Your task to perform on an android device: change the upload size in google photos Image 0: 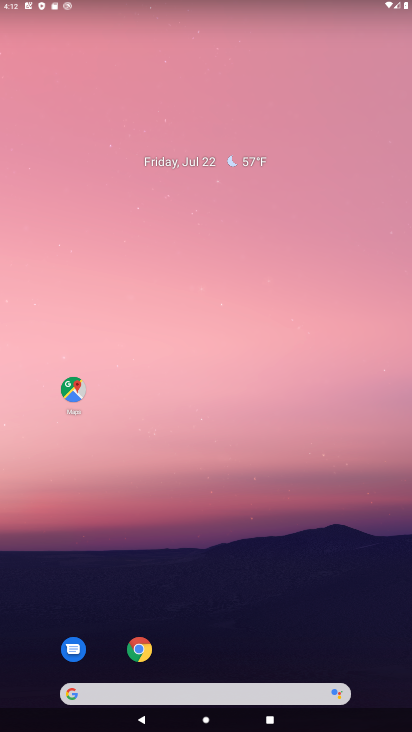
Step 0: drag from (31, 697) to (335, 36)
Your task to perform on an android device: change the upload size in google photos Image 1: 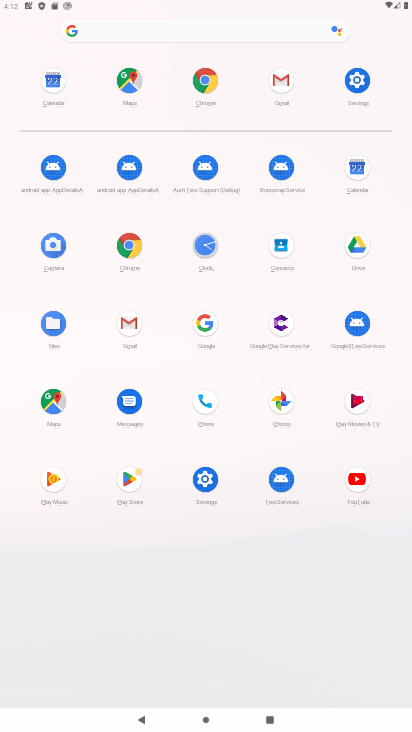
Step 1: click (277, 397)
Your task to perform on an android device: change the upload size in google photos Image 2: 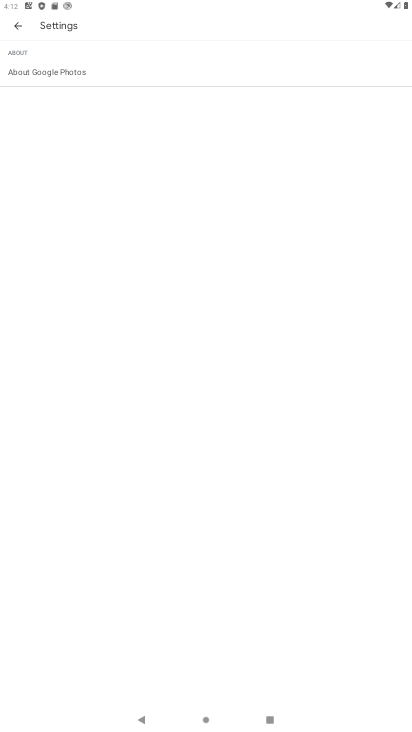
Step 2: click (13, 24)
Your task to perform on an android device: change the upload size in google photos Image 3: 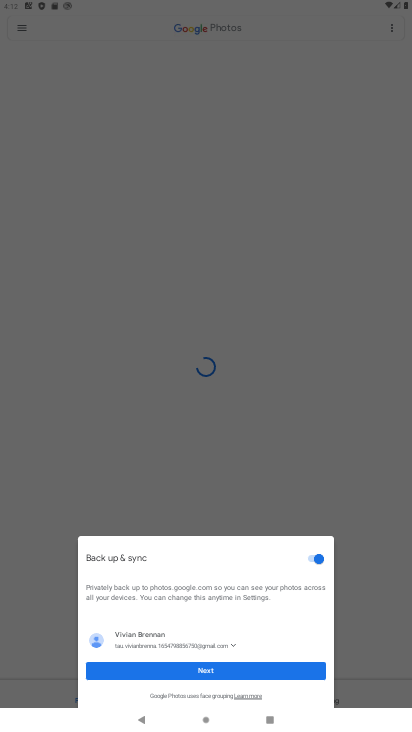
Step 3: click (231, 670)
Your task to perform on an android device: change the upload size in google photos Image 4: 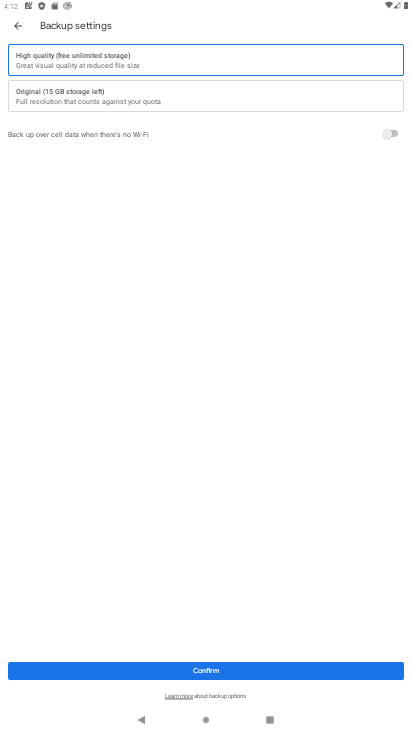
Step 4: click (231, 672)
Your task to perform on an android device: change the upload size in google photos Image 5: 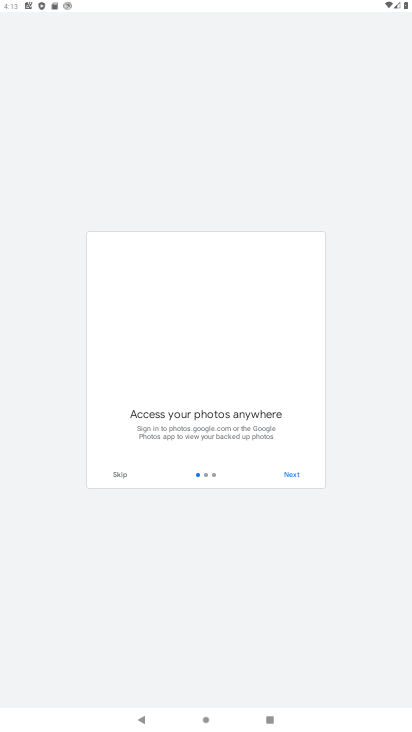
Step 5: task complete